Your task to perform on an android device: change your default location settings in chrome Image 0: 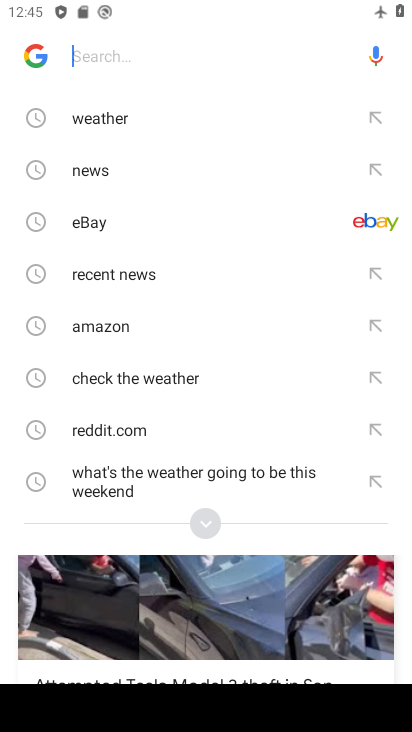
Step 0: press home button
Your task to perform on an android device: change your default location settings in chrome Image 1: 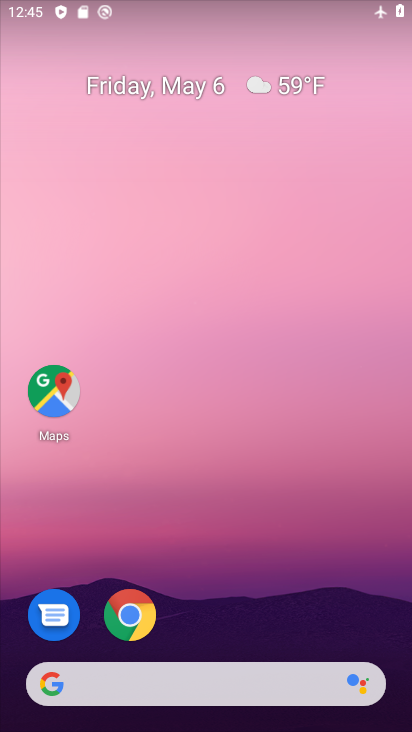
Step 1: drag from (215, 577) to (320, 74)
Your task to perform on an android device: change your default location settings in chrome Image 2: 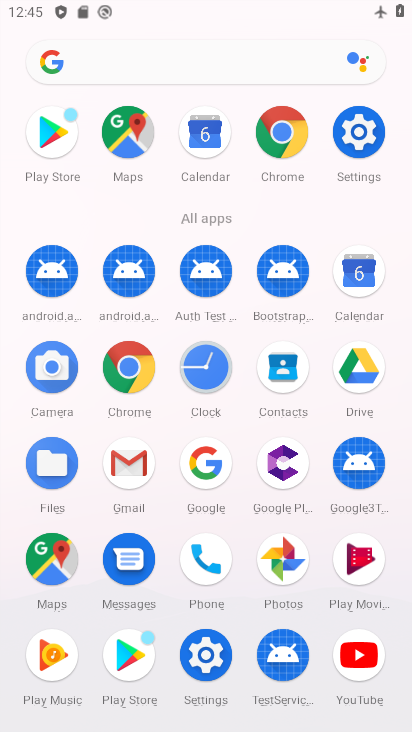
Step 2: click (293, 127)
Your task to perform on an android device: change your default location settings in chrome Image 3: 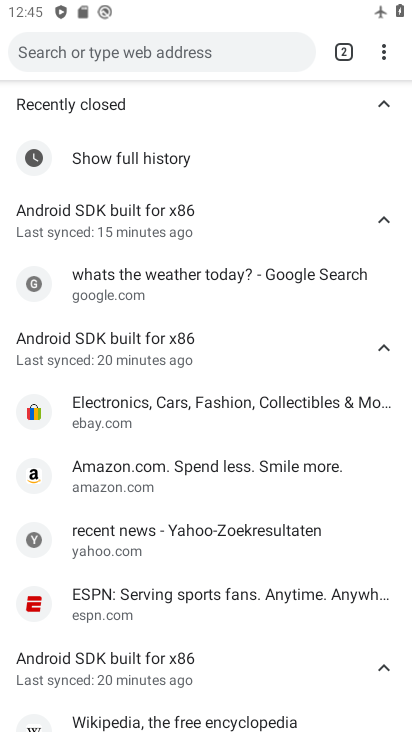
Step 3: drag from (383, 48) to (260, 493)
Your task to perform on an android device: change your default location settings in chrome Image 4: 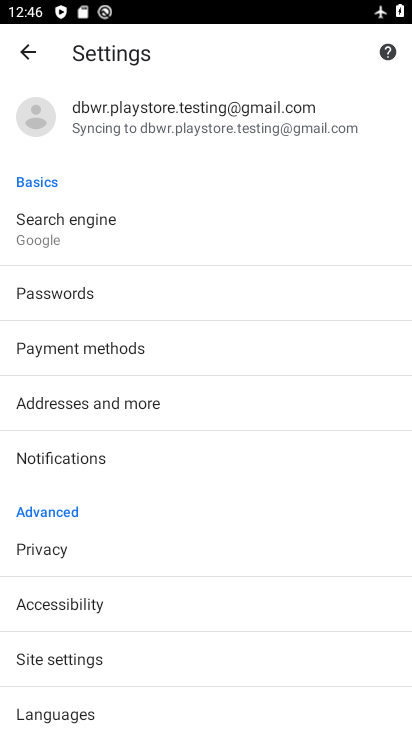
Step 4: click (185, 649)
Your task to perform on an android device: change your default location settings in chrome Image 5: 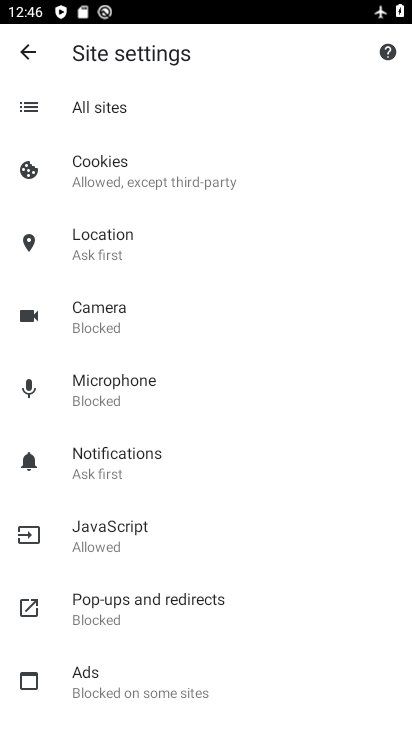
Step 5: click (217, 227)
Your task to perform on an android device: change your default location settings in chrome Image 6: 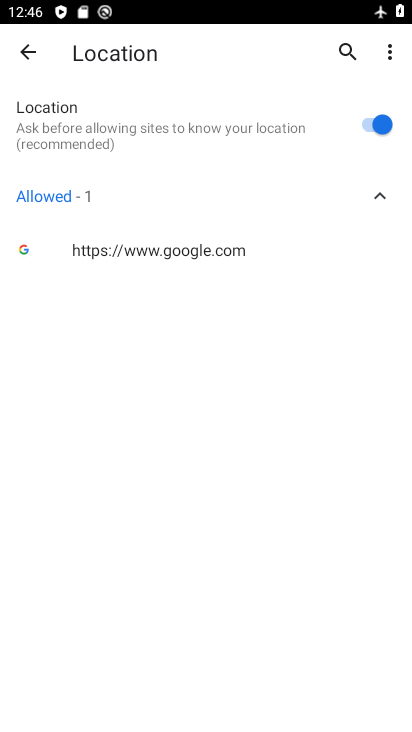
Step 6: click (366, 122)
Your task to perform on an android device: change your default location settings in chrome Image 7: 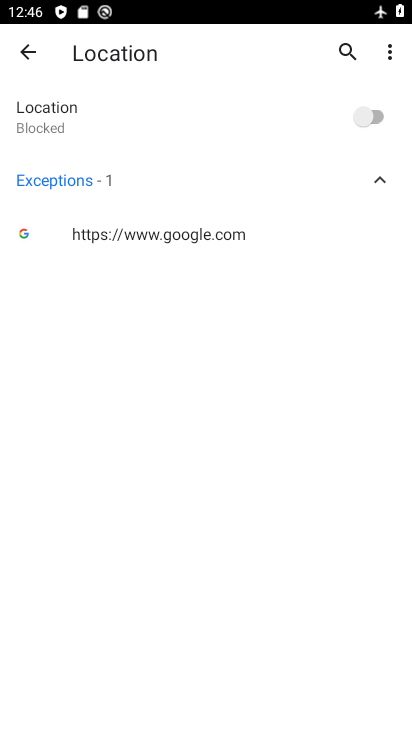
Step 7: task complete